Your task to perform on an android device: turn off picture-in-picture Image 0: 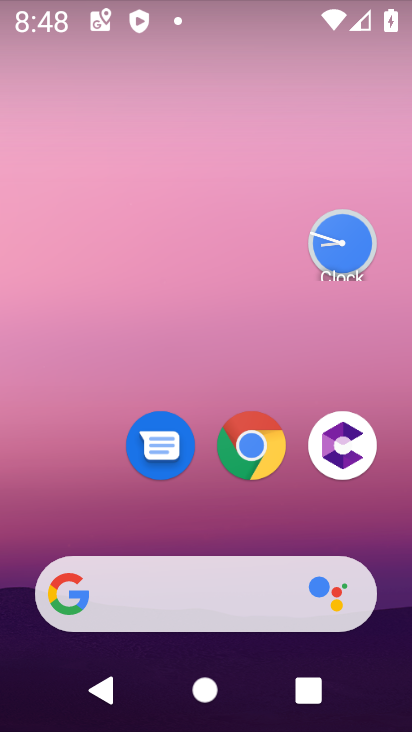
Step 0: click (255, 453)
Your task to perform on an android device: turn off picture-in-picture Image 1: 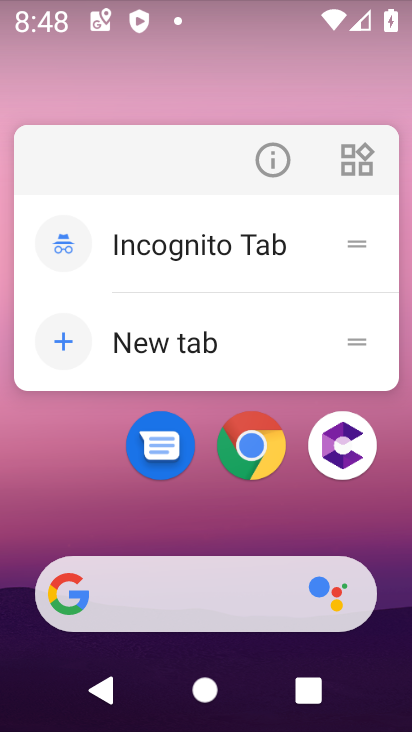
Step 1: click (270, 160)
Your task to perform on an android device: turn off picture-in-picture Image 2: 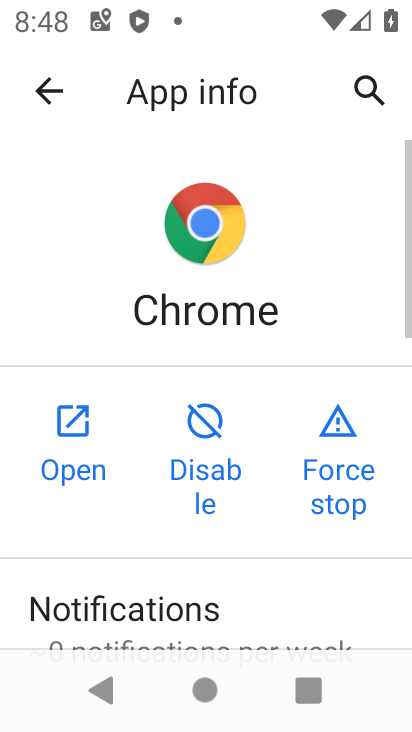
Step 2: drag from (250, 596) to (233, 131)
Your task to perform on an android device: turn off picture-in-picture Image 3: 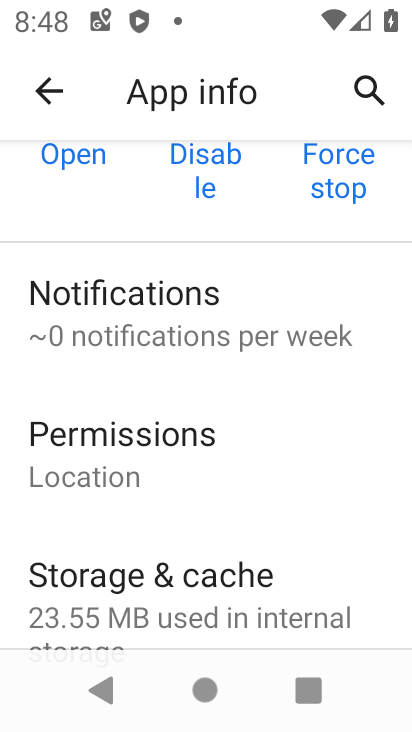
Step 3: drag from (310, 564) to (244, 155)
Your task to perform on an android device: turn off picture-in-picture Image 4: 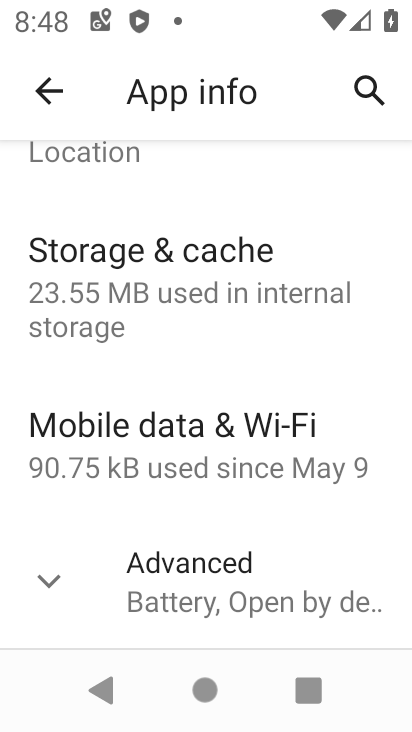
Step 4: click (51, 590)
Your task to perform on an android device: turn off picture-in-picture Image 5: 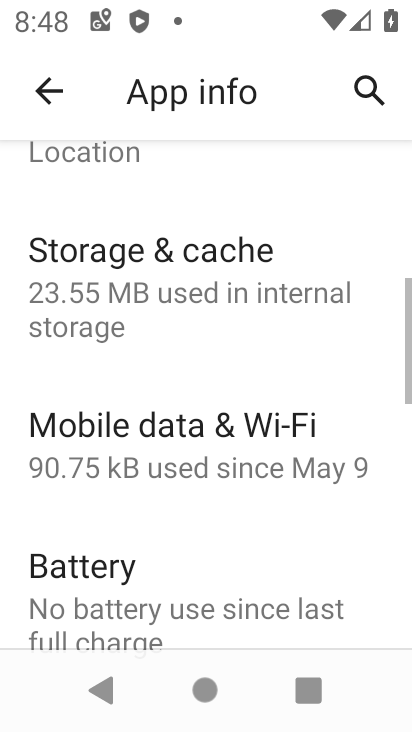
Step 5: drag from (273, 558) to (262, 212)
Your task to perform on an android device: turn off picture-in-picture Image 6: 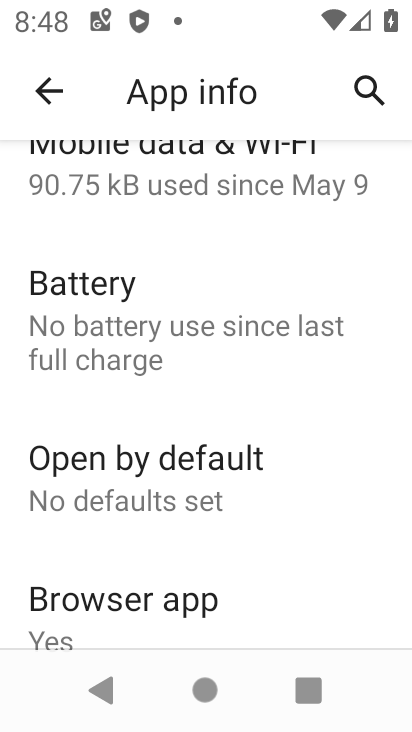
Step 6: drag from (282, 588) to (246, 256)
Your task to perform on an android device: turn off picture-in-picture Image 7: 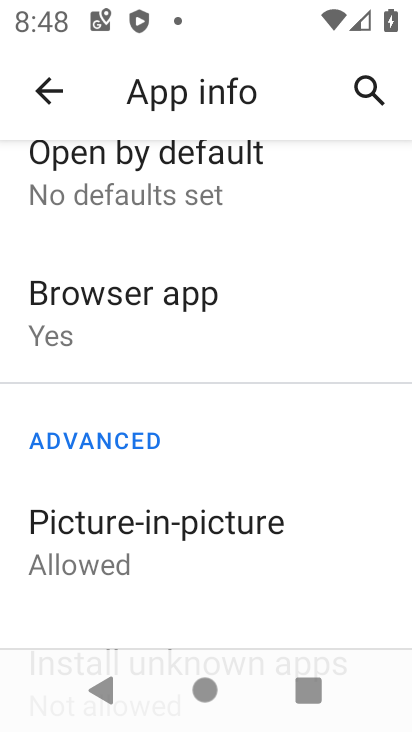
Step 7: click (184, 548)
Your task to perform on an android device: turn off picture-in-picture Image 8: 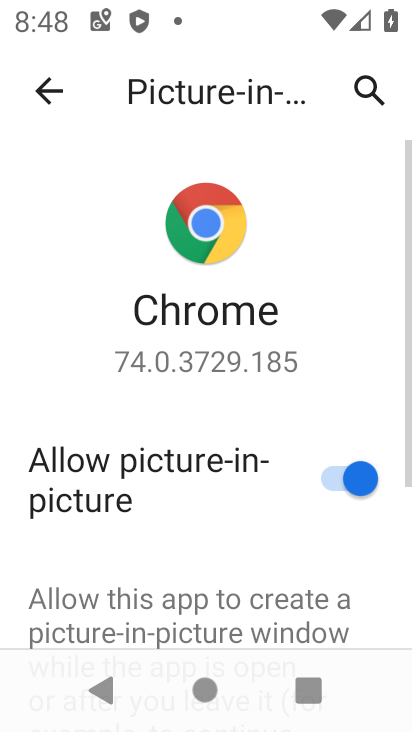
Step 8: click (341, 475)
Your task to perform on an android device: turn off picture-in-picture Image 9: 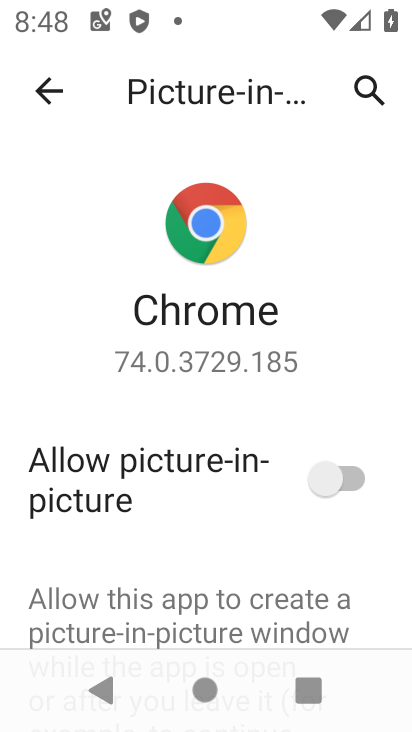
Step 9: task complete